Your task to perform on an android device: check google app version Image 0: 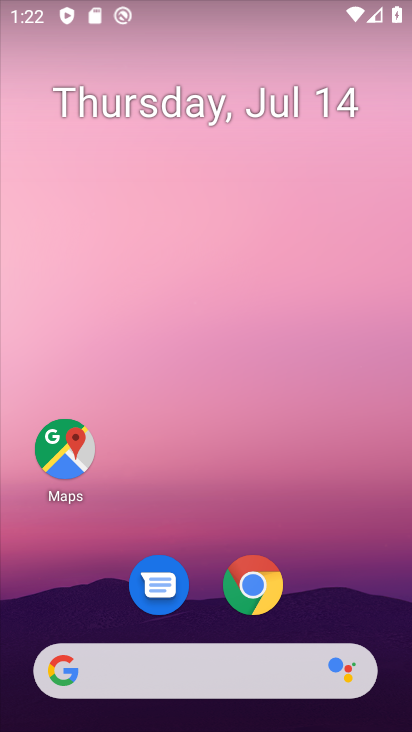
Step 0: drag from (340, 603) to (323, 526)
Your task to perform on an android device: check google app version Image 1: 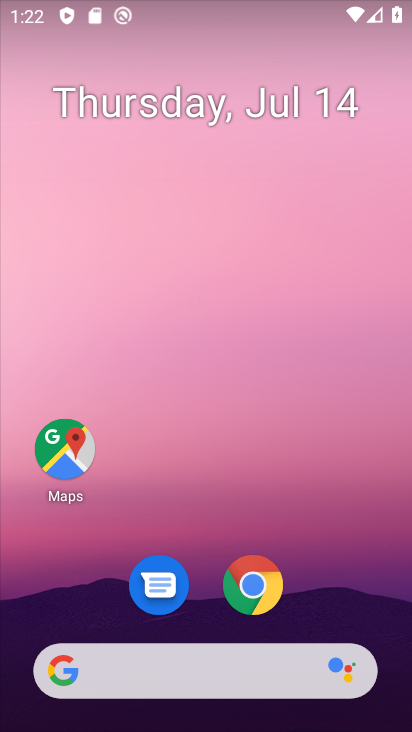
Step 1: click (107, 672)
Your task to perform on an android device: check google app version Image 2: 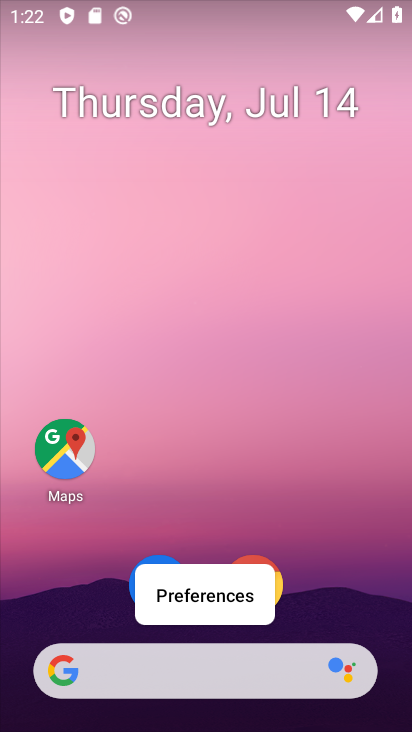
Step 2: click (224, 675)
Your task to perform on an android device: check google app version Image 3: 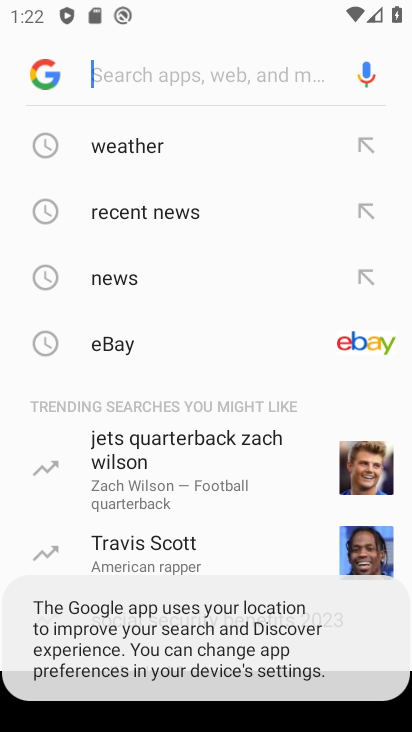
Step 3: click (47, 69)
Your task to perform on an android device: check google app version Image 4: 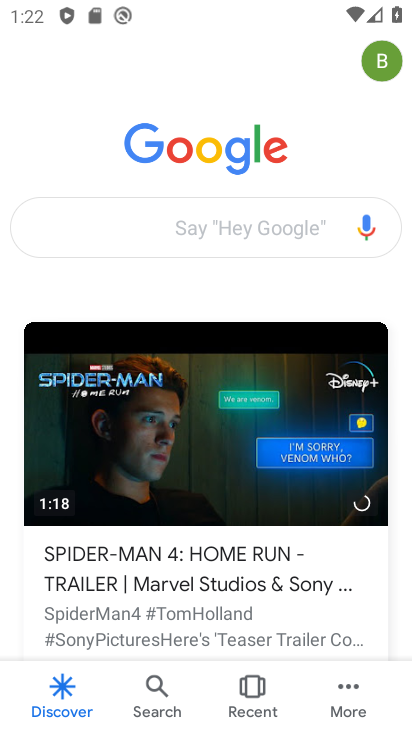
Step 4: click (377, 56)
Your task to perform on an android device: check google app version Image 5: 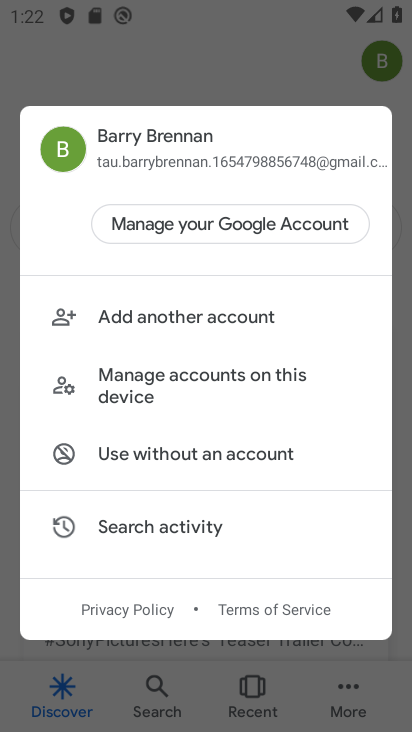
Step 5: drag from (223, 513) to (274, 256)
Your task to perform on an android device: check google app version Image 6: 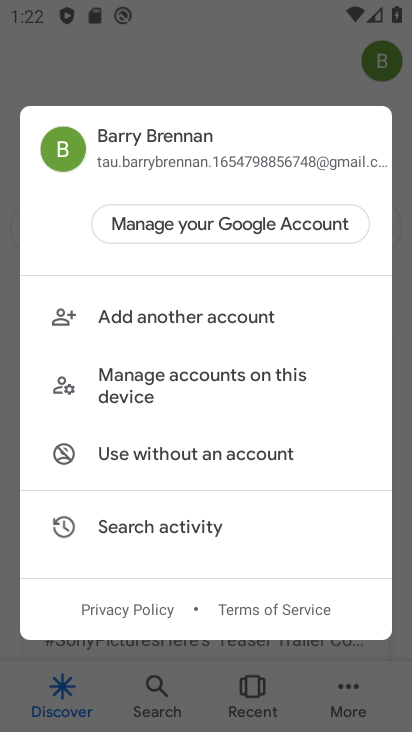
Step 6: click (249, 78)
Your task to perform on an android device: check google app version Image 7: 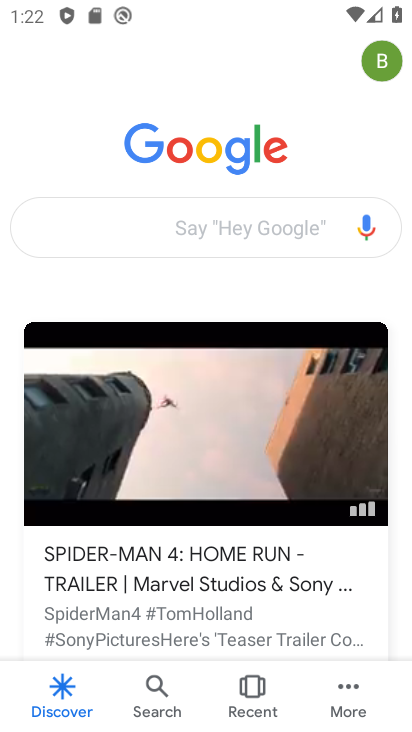
Step 7: click (342, 685)
Your task to perform on an android device: check google app version Image 8: 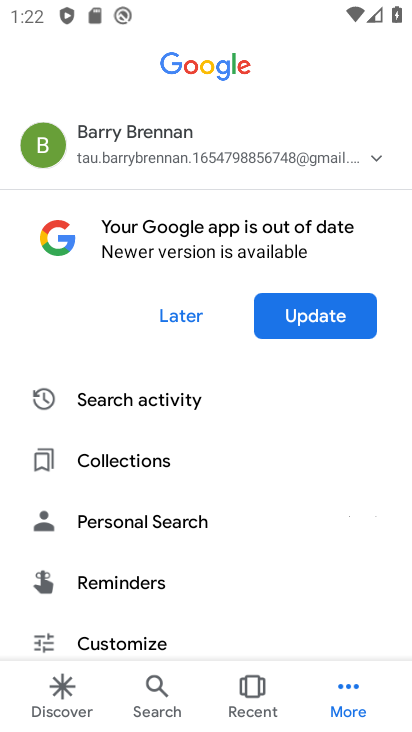
Step 8: drag from (253, 584) to (245, 268)
Your task to perform on an android device: check google app version Image 9: 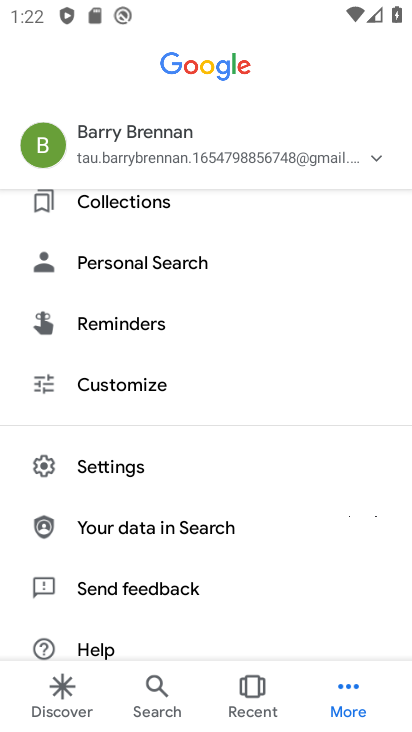
Step 9: click (118, 459)
Your task to perform on an android device: check google app version Image 10: 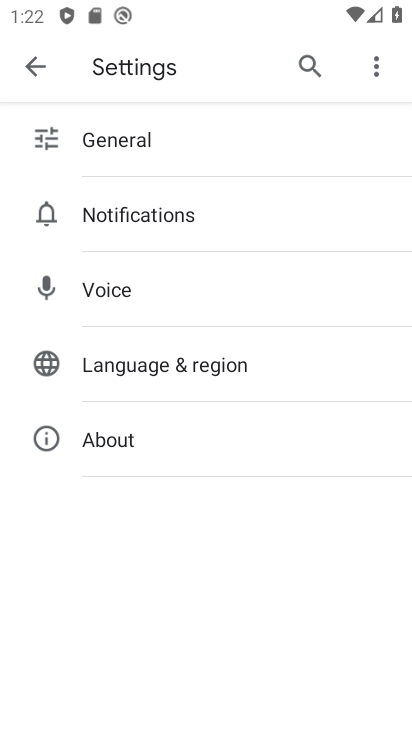
Step 10: click (118, 436)
Your task to perform on an android device: check google app version Image 11: 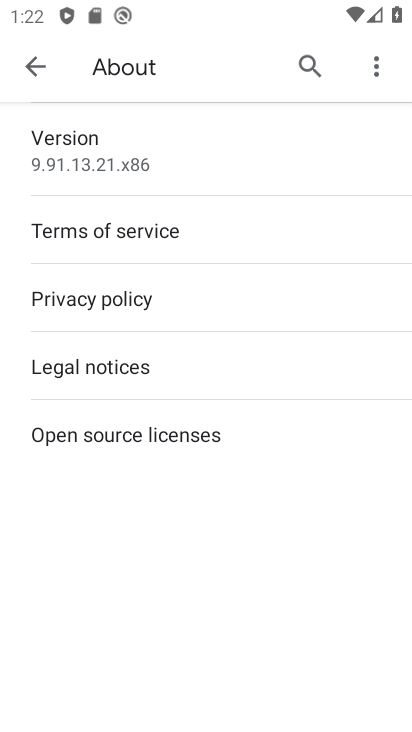
Step 11: task complete